Your task to perform on an android device: Go to settings Image 0: 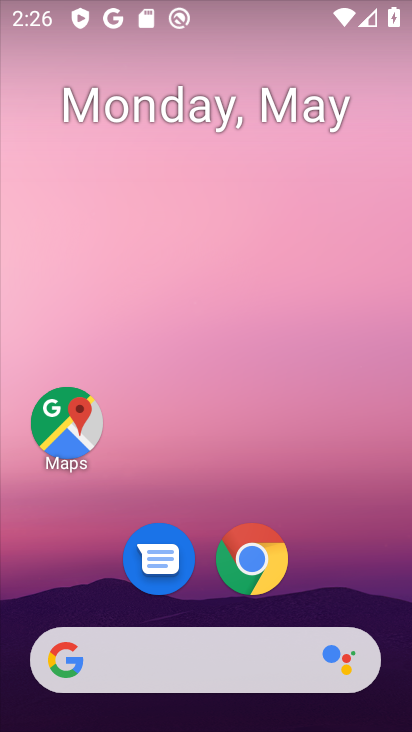
Step 0: drag from (339, 598) to (332, 25)
Your task to perform on an android device: Go to settings Image 1: 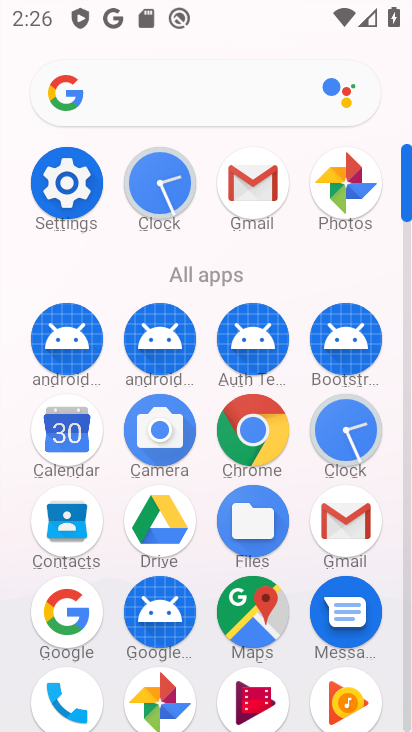
Step 1: click (68, 187)
Your task to perform on an android device: Go to settings Image 2: 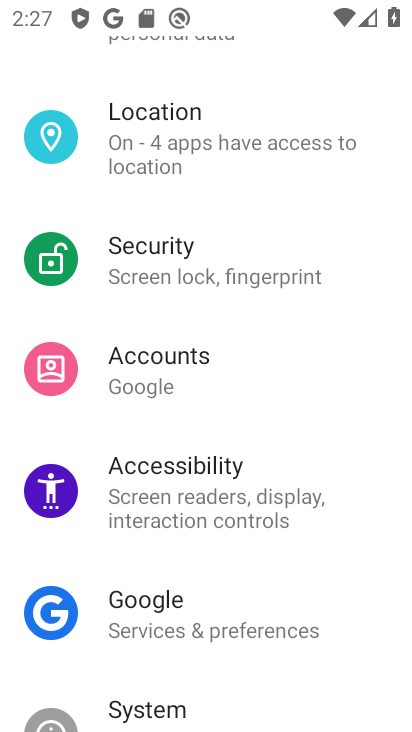
Step 2: task complete